Your task to perform on an android device: move an email to a new category in the gmail app Image 0: 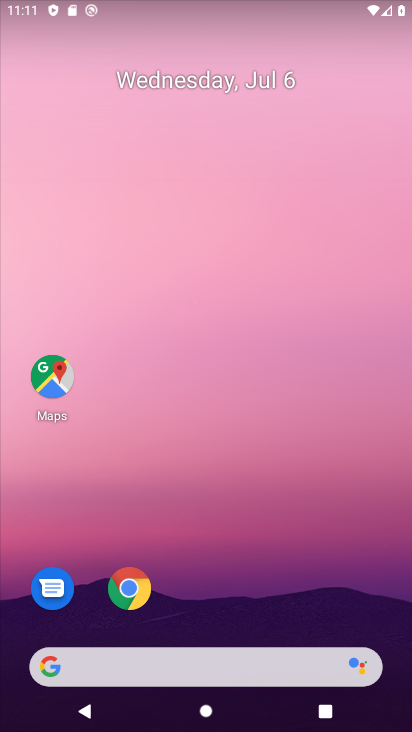
Step 0: drag from (261, 579) to (290, 47)
Your task to perform on an android device: move an email to a new category in the gmail app Image 1: 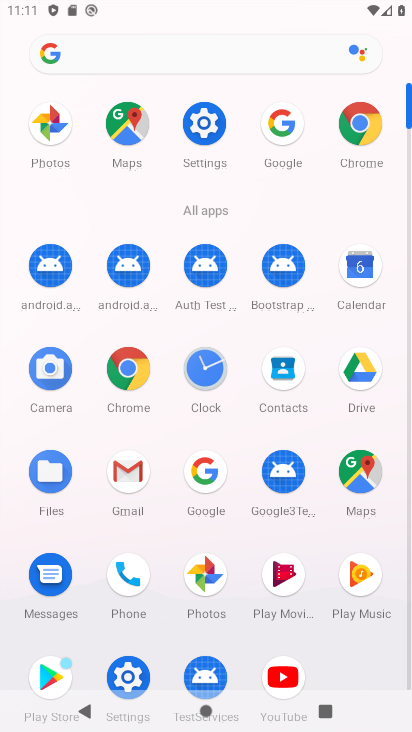
Step 1: click (136, 459)
Your task to perform on an android device: move an email to a new category in the gmail app Image 2: 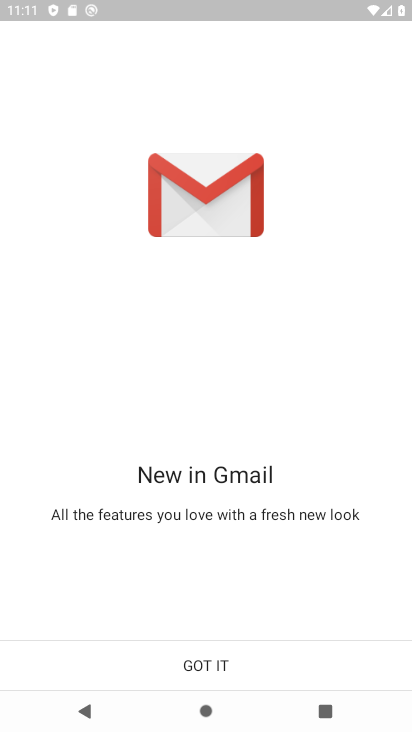
Step 2: click (204, 653)
Your task to perform on an android device: move an email to a new category in the gmail app Image 3: 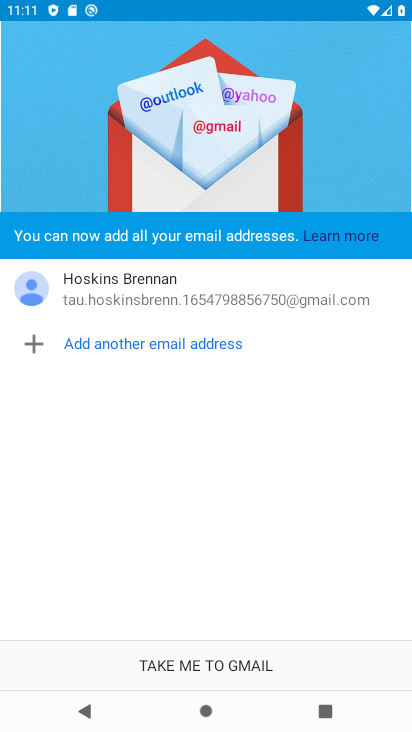
Step 3: click (204, 653)
Your task to perform on an android device: move an email to a new category in the gmail app Image 4: 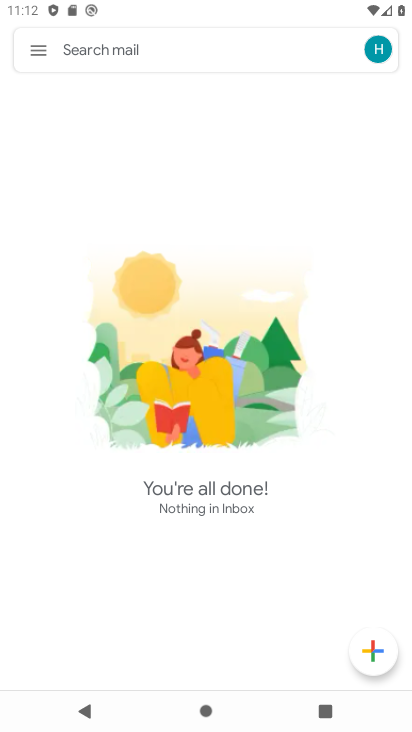
Step 4: click (36, 46)
Your task to perform on an android device: move an email to a new category in the gmail app Image 5: 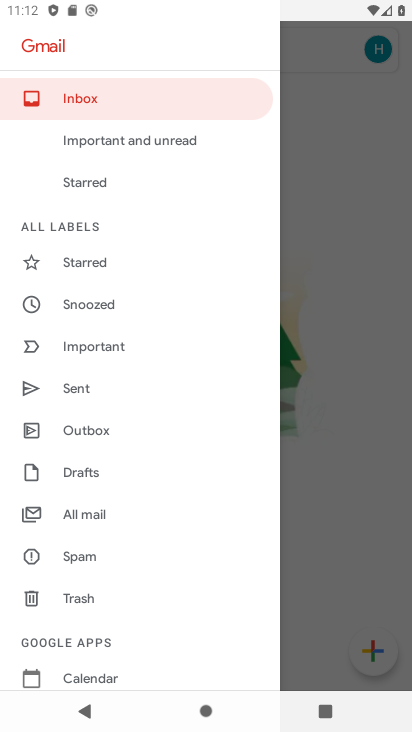
Step 5: click (126, 514)
Your task to perform on an android device: move an email to a new category in the gmail app Image 6: 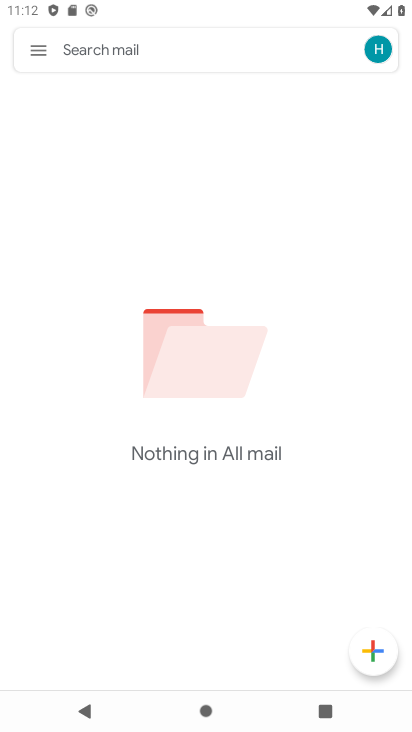
Step 6: task complete